Your task to perform on an android device: refresh tabs in the chrome app Image 0: 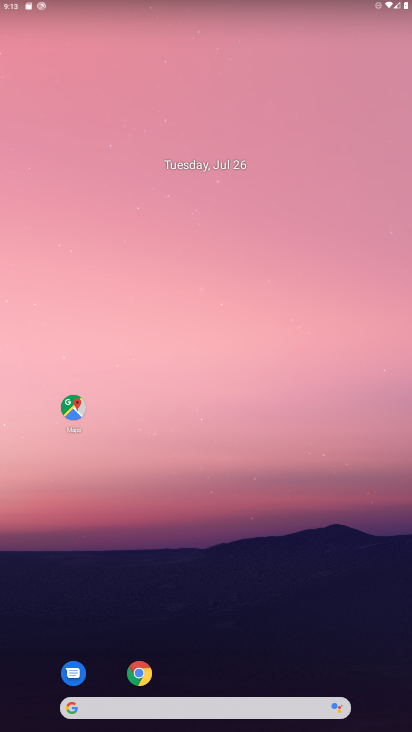
Step 0: click (139, 673)
Your task to perform on an android device: refresh tabs in the chrome app Image 1: 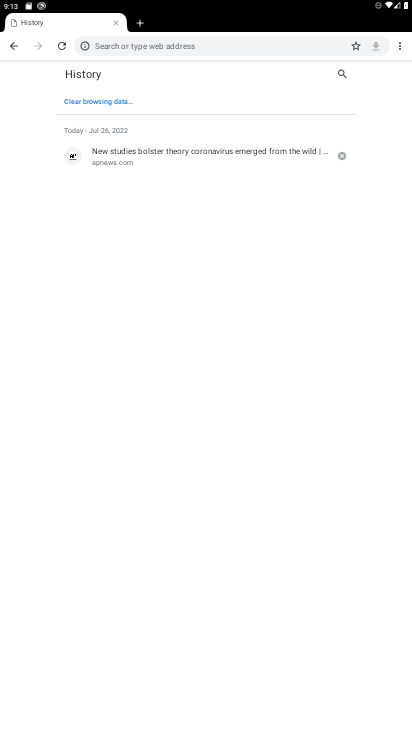
Step 1: click (404, 43)
Your task to perform on an android device: refresh tabs in the chrome app Image 2: 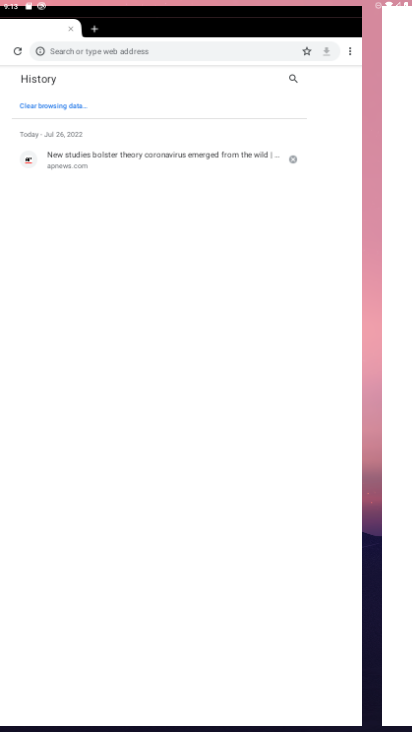
Step 2: click (304, 80)
Your task to perform on an android device: refresh tabs in the chrome app Image 3: 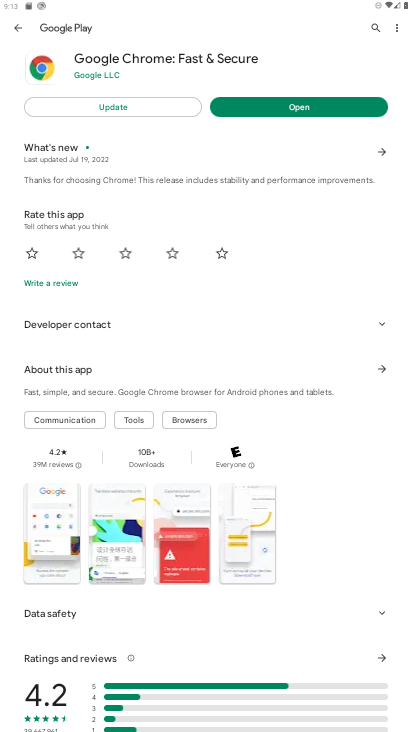
Step 3: press back button
Your task to perform on an android device: refresh tabs in the chrome app Image 4: 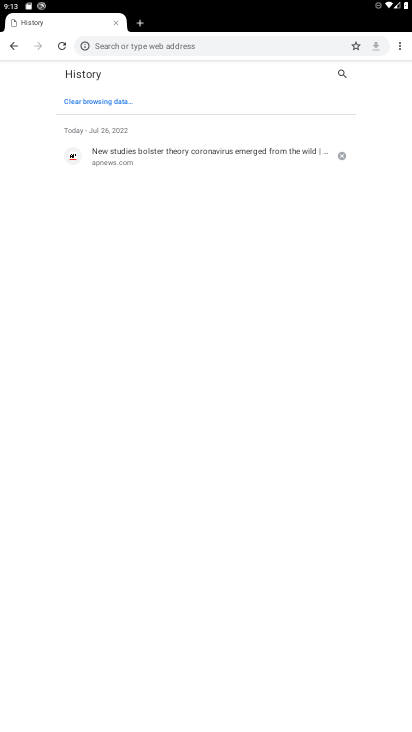
Step 4: click (404, 47)
Your task to perform on an android device: refresh tabs in the chrome app Image 5: 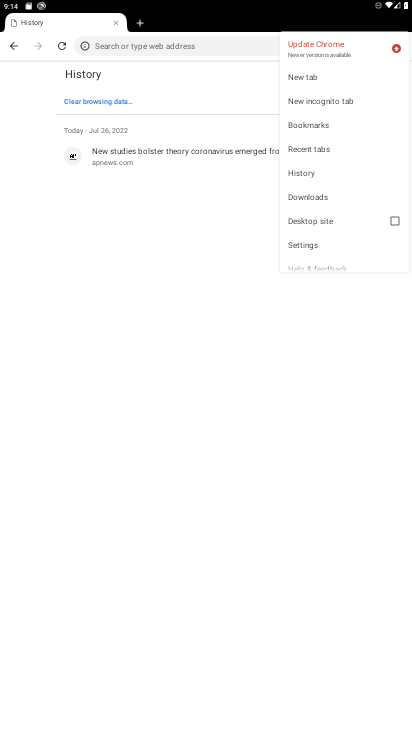
Step 5: drag from (307, 197) to (301, 100)
Your task to perform on an android device: refresh tabs in the chrome app Image 6: 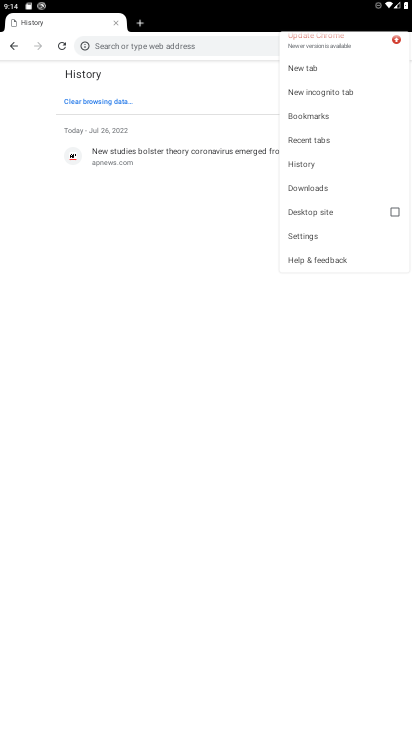
Step 6: drag from (360, 115) to (353, 235)
Your task to perform on an android device: refresh tabs in the chrome app Image 7: 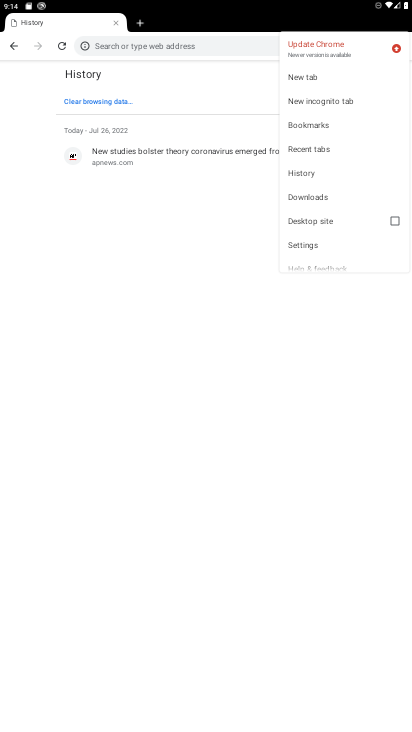
Step 7: click (57, 46)
Your task to perform on an android device: refresh tabs in the chrome app Image 8: 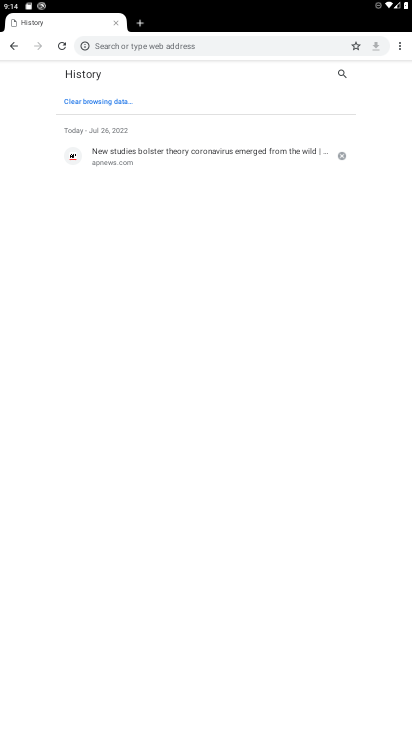
Step 8: click (405, 48)
Your task to perform on an android device: refresh tabs in the chrome app Image 9: 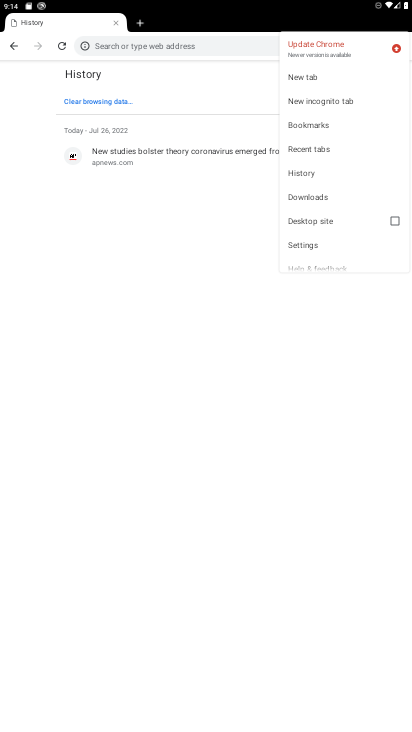
Step 9: click (394, 46)
Your task to perform on an android device: refresh tabs in the chrome app Image 10: 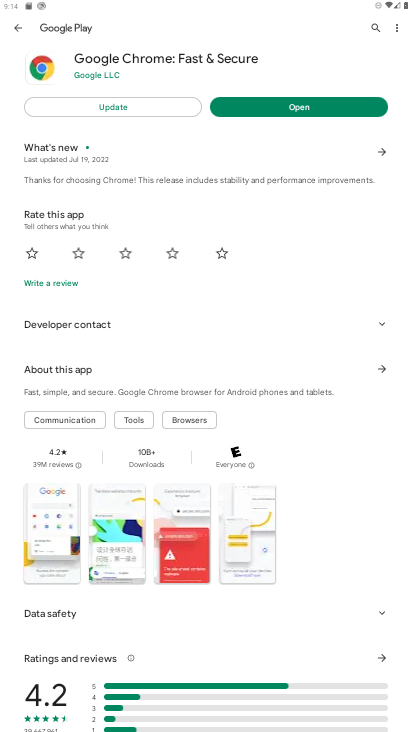
Step 10: task complete